Your task to perform on an android device: create a new album in the google photos Image 0: 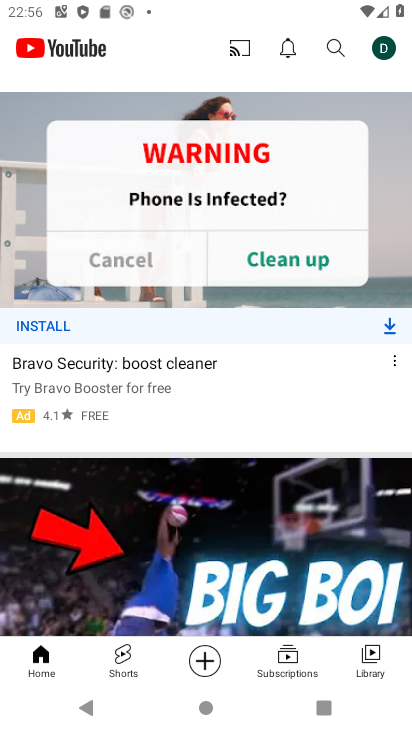
Step 0: press home button
Your task to perform on an android device: create a new album in the google photos Image 1: 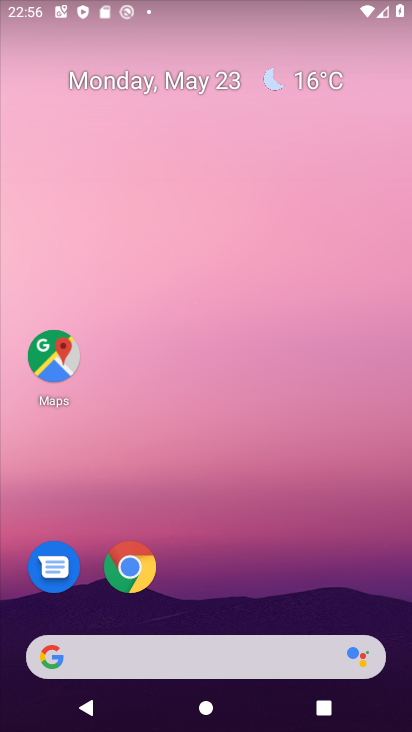
Step 1: drag from (233, 530) to (284, 217)
Your task to perform on an android device: create a new album in the google photos Image 2: 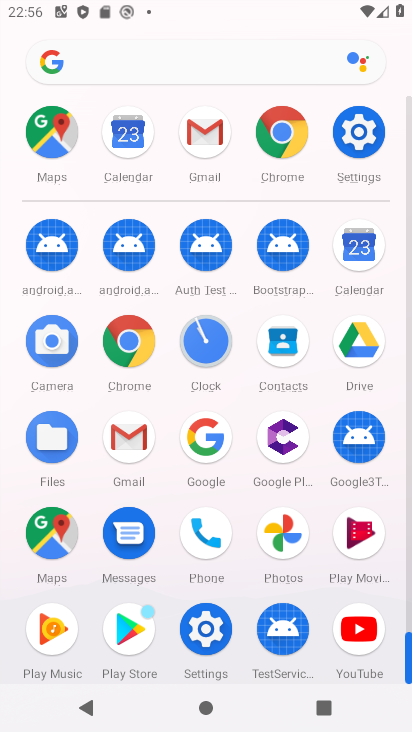
Step 2: drag from (222, 495) to (258, 284)
Your task to perform on an android device: create a new album in the google photos Image 3: 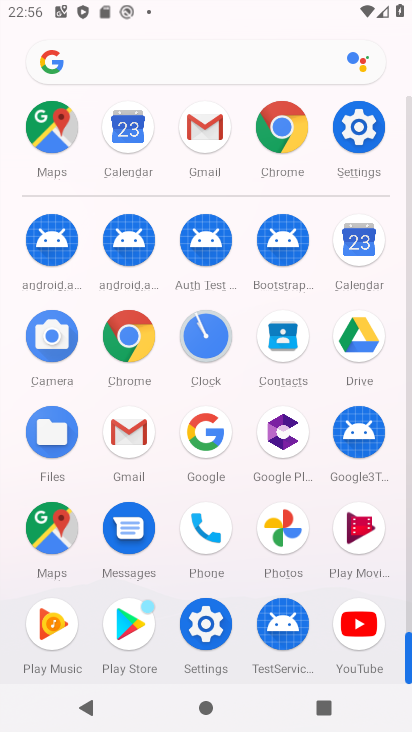
Step 3: click (289, 536)
Your task to perform on an android device: create a new album in the google photos Image 4: 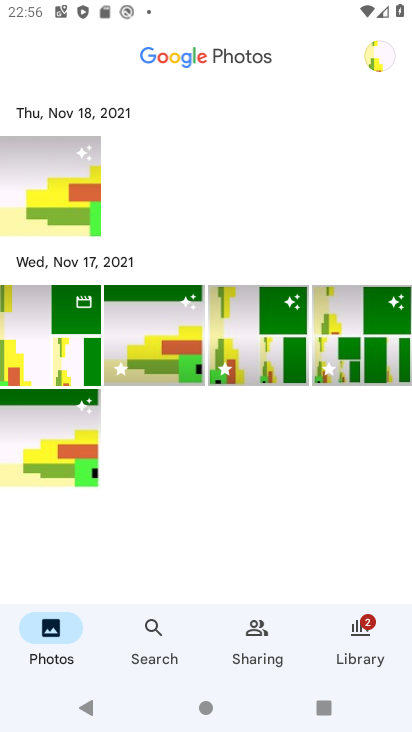
Step 4: click (363, 634)
Your task to perform on an android device: create a new album in the google photos Image 5: 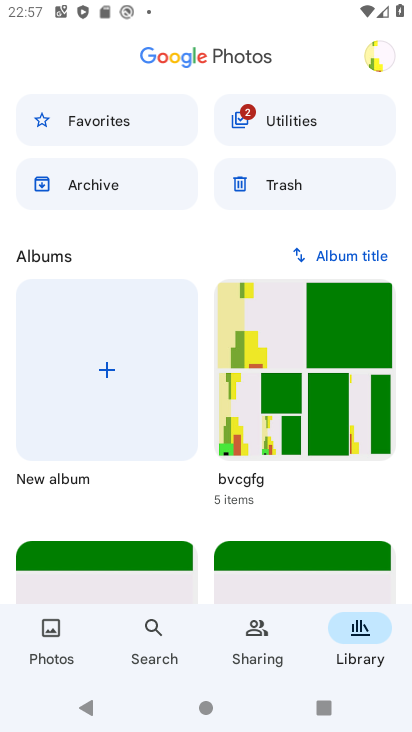
Step 5: click (100, 369)
Your task to perform on an android device: create a new album in the google photos Image 6: 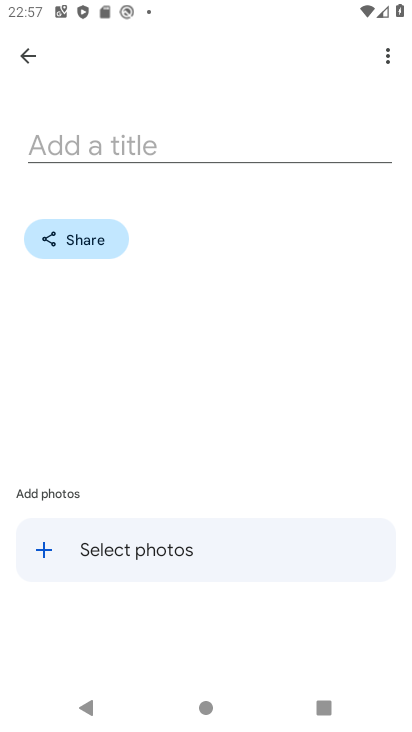
Step 6: click (188, 134)
Your task to perform on an android device: create a new album in the google photos Image 7: 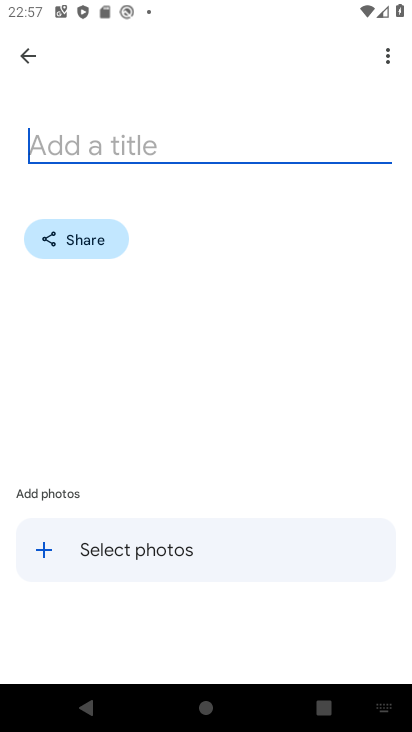
Step 7: type "abc"
Your task to perform on an android device: create a new album in the google photos Image 8: 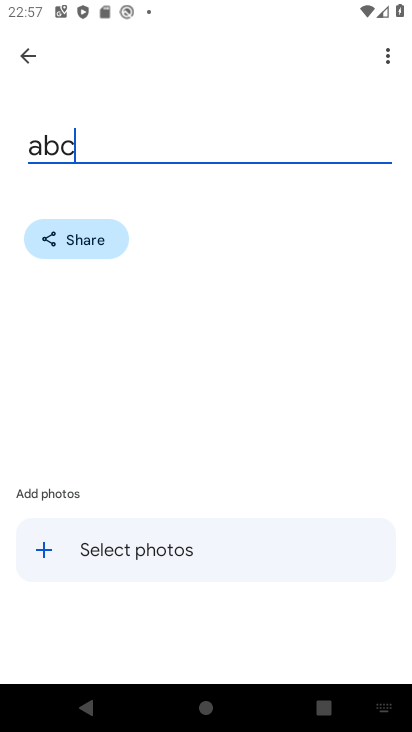
Step 8: click (199, 530)
Your task to perform on an android device: create a new album in the google photos Image 9: 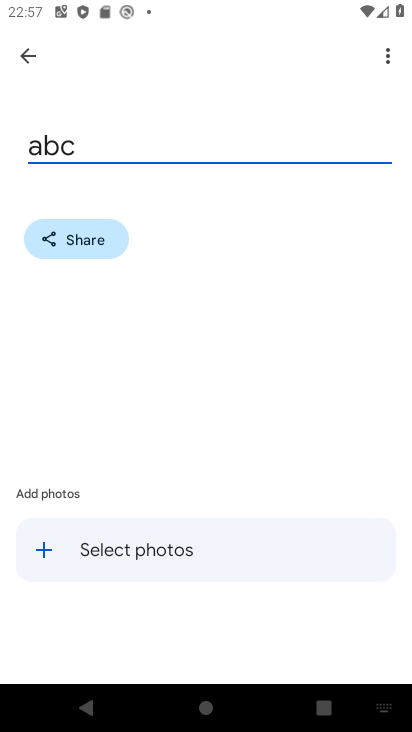
Step 9: click (186, 551)
Your task to perform on an android device: create a new album in the google photos Image 10: 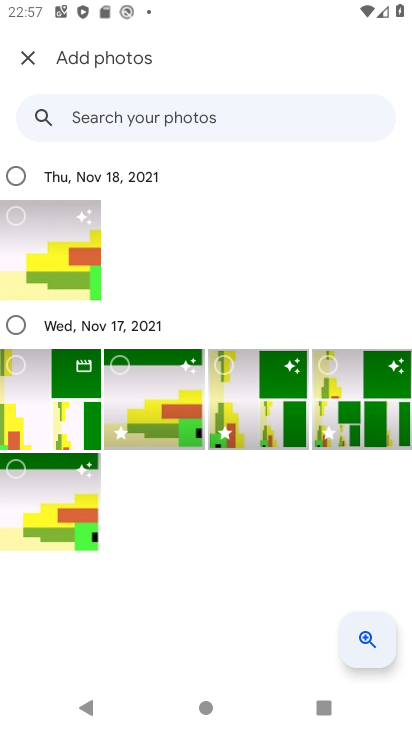
Step 10: click (155, 408)
Your task to perform on an android device: create a new album in the google photos Image 11: 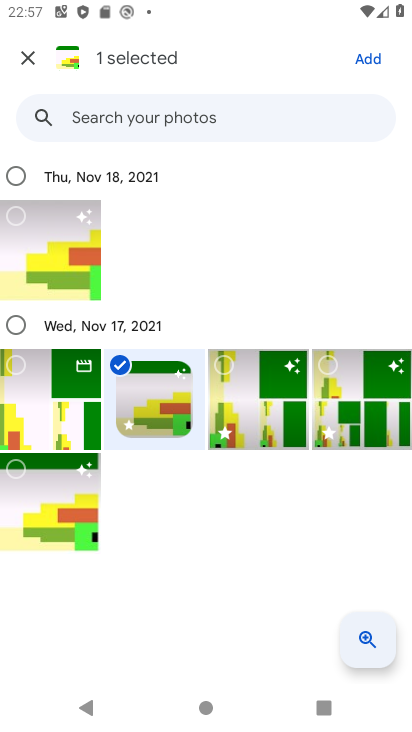
Step 11: click (377, 53)
Your task to perform on an android device: create a new album in the google photos Image 12: 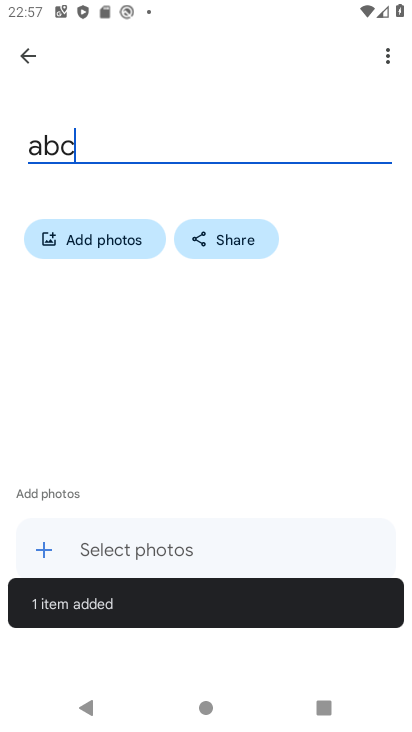
Step 12: task complete